Your task to perform on an android device: Search for razer naga on target, select the first entry, add it to the cart, then select checkout. Image 0: 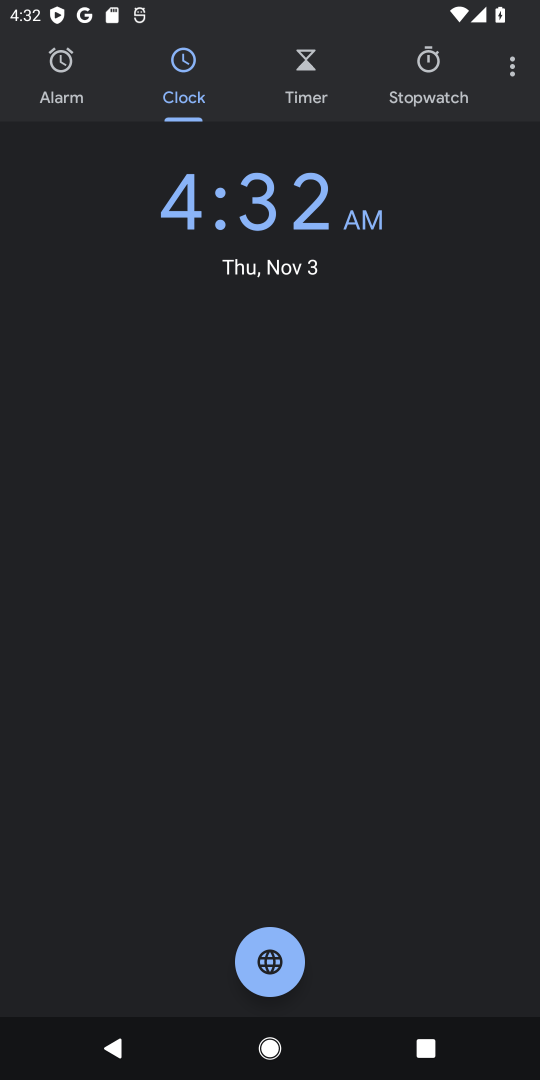
Step 0: press home button
Your task to perform on an android device: Search for razer naga on target, select the first entry, add it to the cart, then select checkout. Image 1: 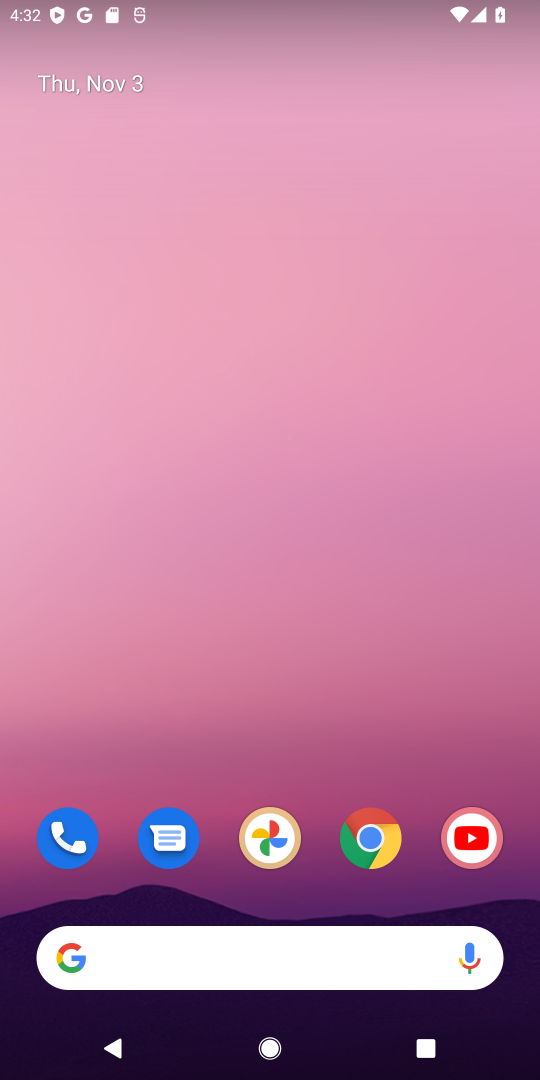
Step 1: click (370, 839)
Your task to perform on an android device: Search for razer naga on target, select the first entry, add it to the cart, then select checkout. Image 2: 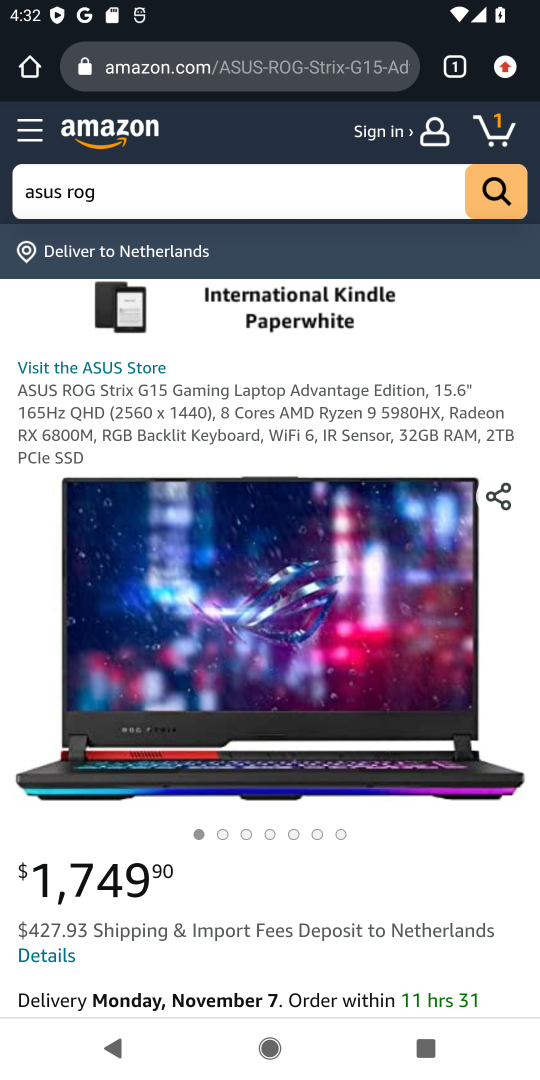
Step 2: click (215, 59)
Your task to perform on an android device: Search for razer naga on target, select the first entry, add it to the cart, then select checkout. Image 3: 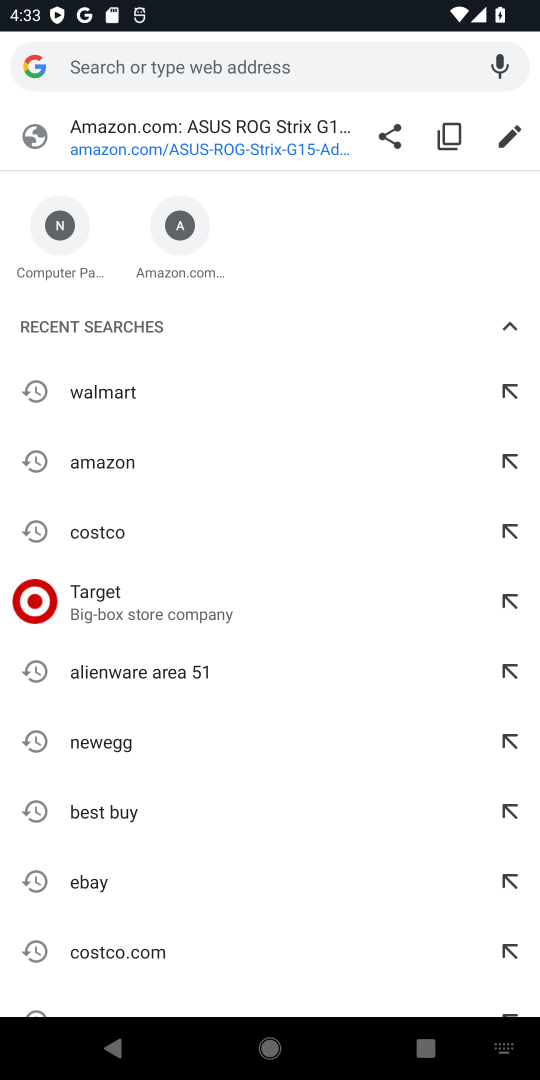
Step 3: click (131, 605)
Your task to perform on an android device: Search for razer naga on target, select the first entry, add it to the cart, then select checkout. Image 4: 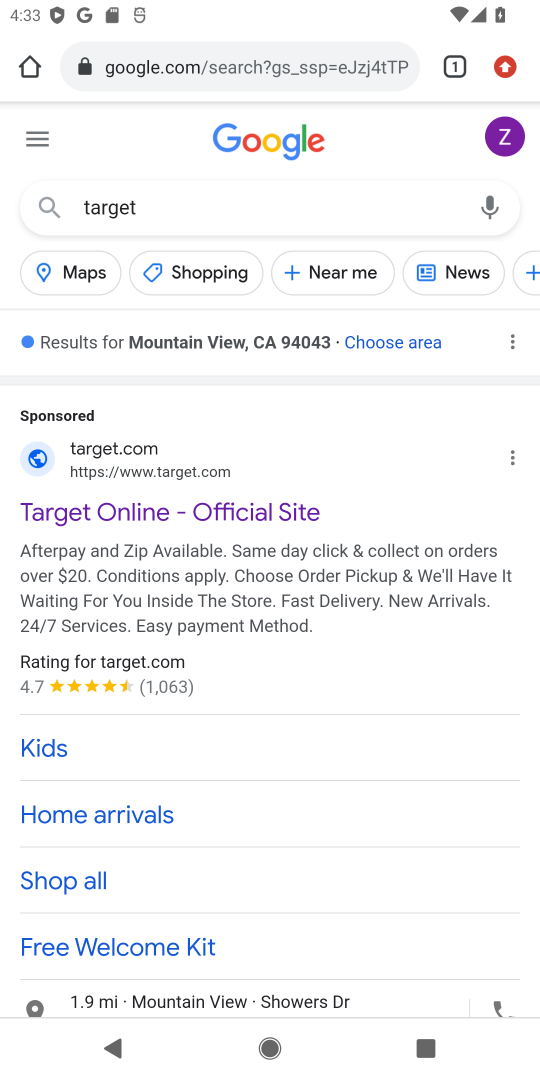
Step 4: click (192, 508)
Your task to perform on an android device: Search for razer naga on target, select the first entry, add it to the cart, then select checkout. Image 5: 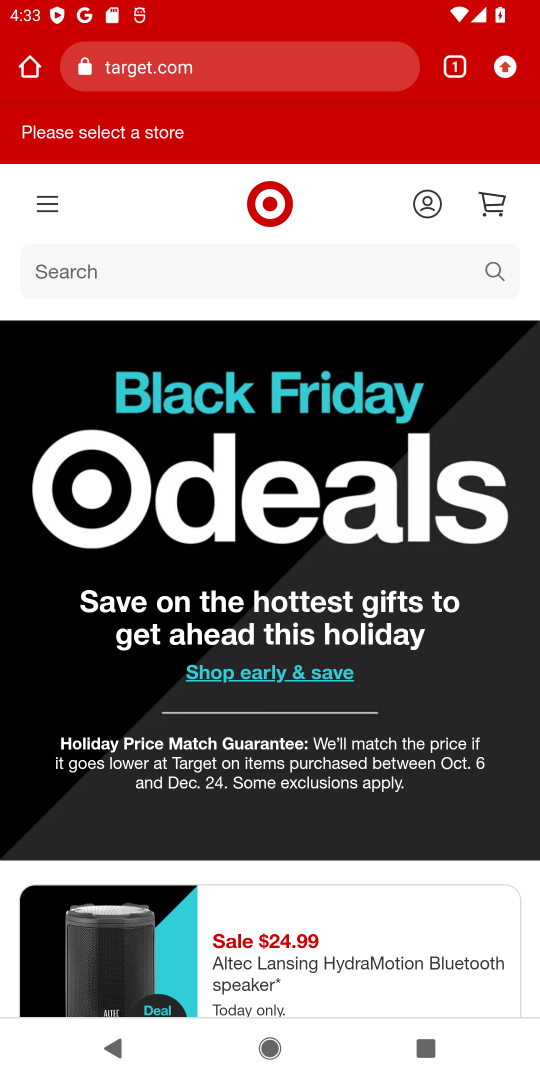
Step 5: click (275, 273)
Your task to perform on an android device: Search for razer naga on target, select the first entry, add it to the cart, then select checkout. Image 6: 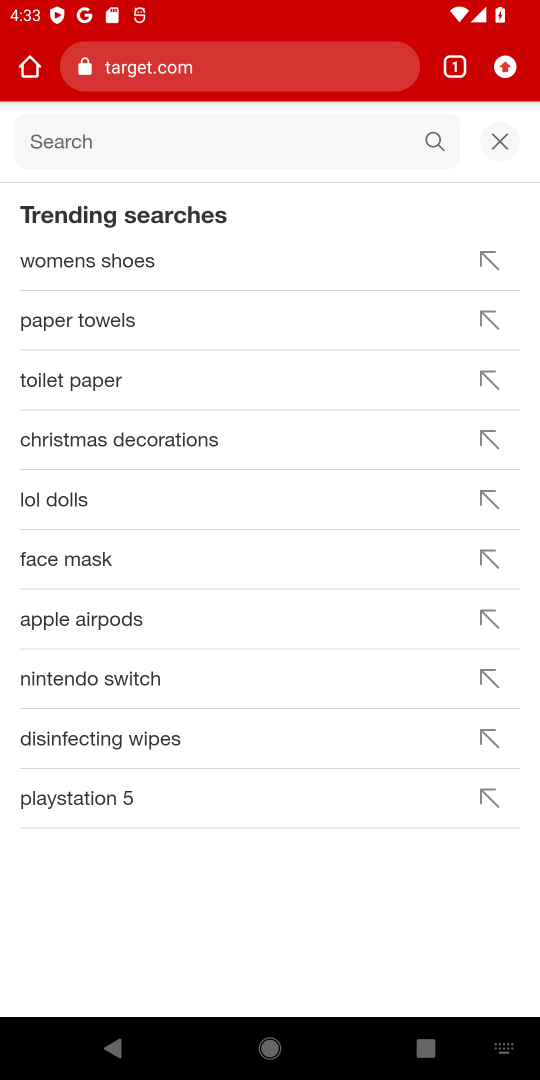
Step 6: type "razer naga"
Your task to perform on an android device: Search for razer naga on target, select the first entry, add it to the cart, then select checkout. Image 7: 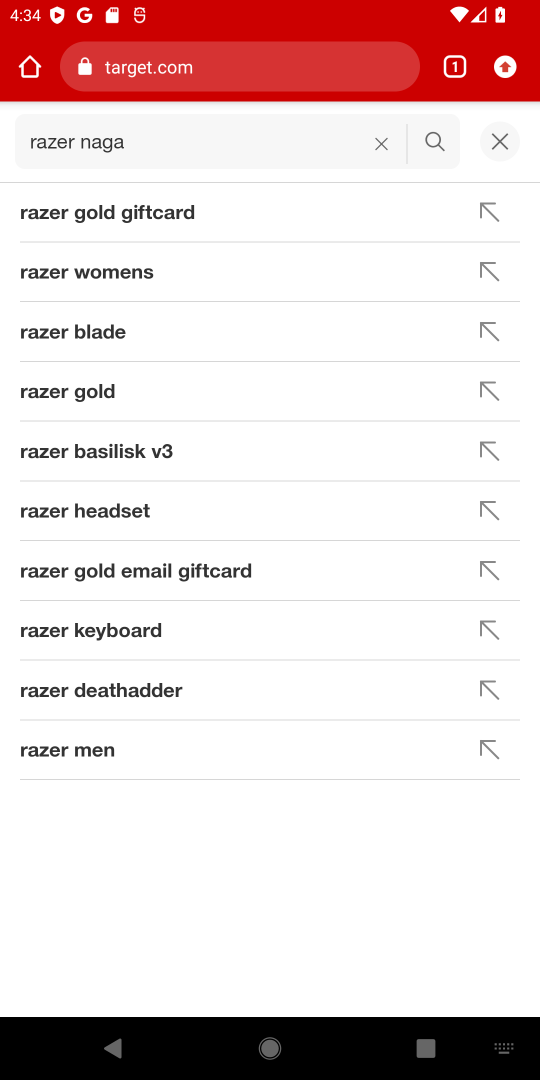
Step 7: task complete